Your task to perform on an android device: Go to accessibility settings Image 0: 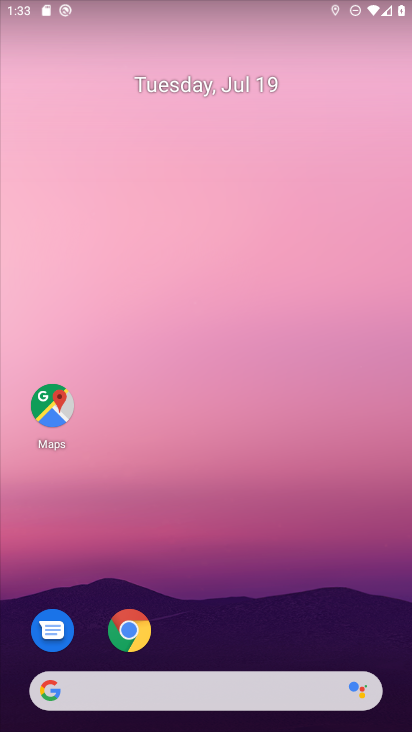
Step 0: drag from (151, 692) to (338, 19)
Your task to perform on an android device: Go to accessibility settings Image 1: 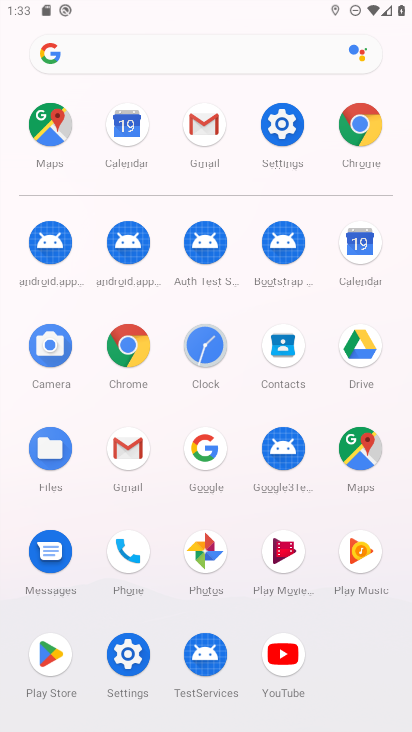
Step 1: click (280, 134)
Your task to perform on an android device: Go to accessibility settings Image 2: 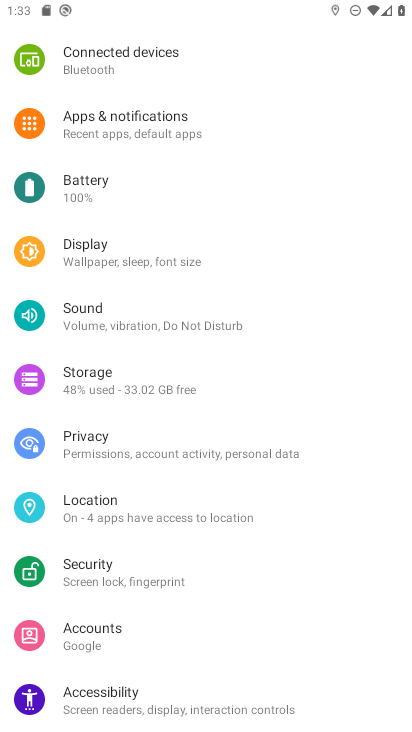
Step 2: drag from (230, 659) to (323, 143)
Your task to perform on an android device: Go to accessibility settings Image 3: 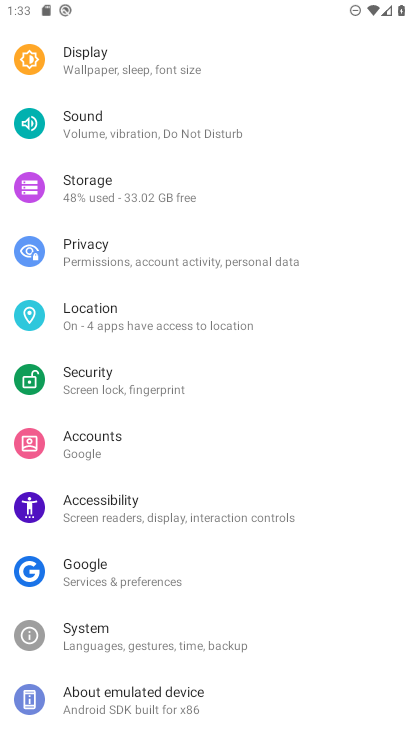
Step 3: click (119, 502)
Your task to perform on an android device: Go to accessibility settings Image 4: 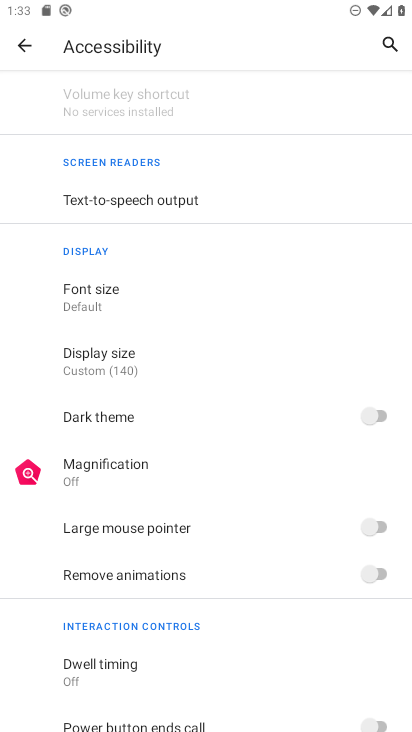
Step 4: task complete